Your task to perform on an android device: change the clock style Image 0: 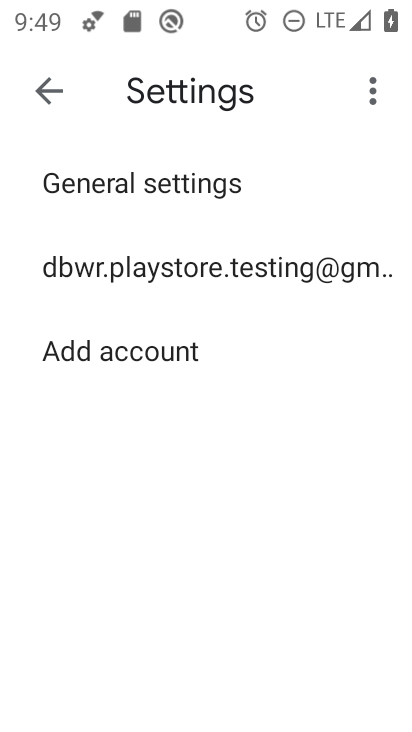
Step 0: press home button
Your task to perform on an android device: change the clock style Image 1: 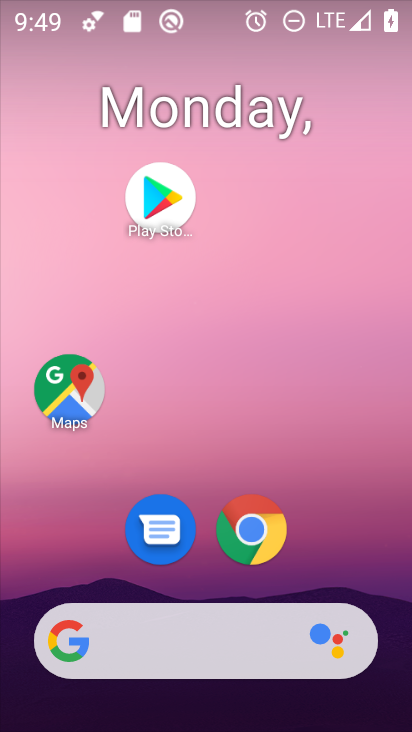
Step 1: drag from (344, 468) to (246, 120)
Your task to perform on an android device: change the clock style Image 2: 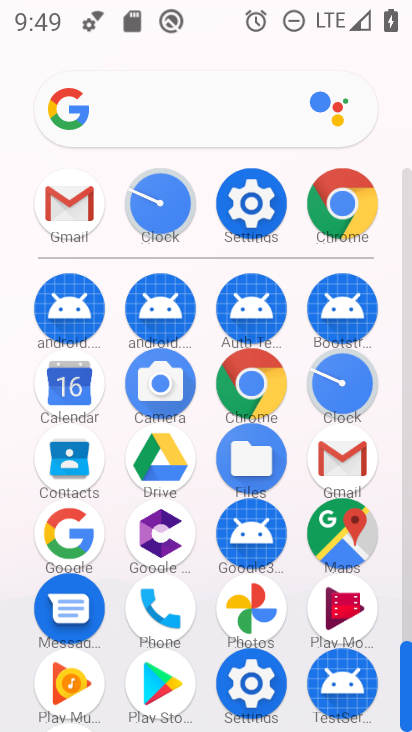
Step 2: click (339, 389)
Your task to perform on an android device: change the clock style Image 3: 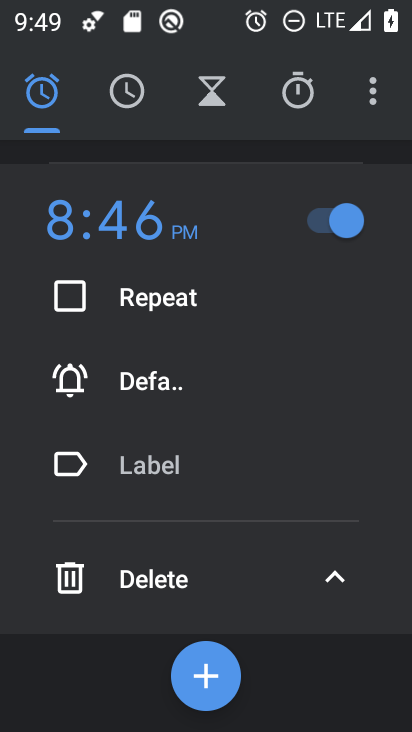
Step 3: click (370, 92)
Your task to perform on an android device: change the clock style Image 4: 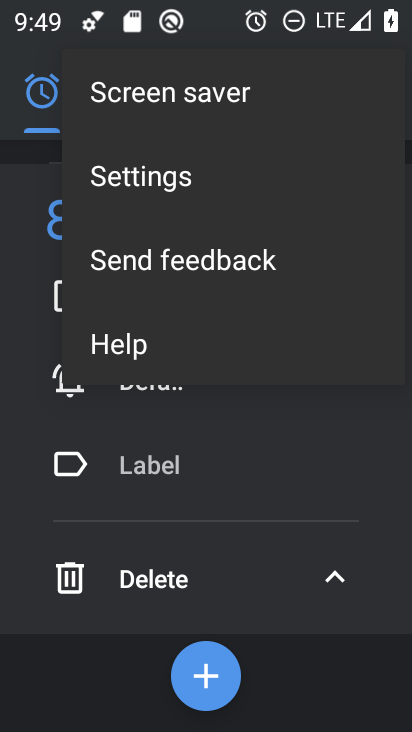
Step 4: click (157, 170)
Your task to perform on an android device: change the clock style Image 5: 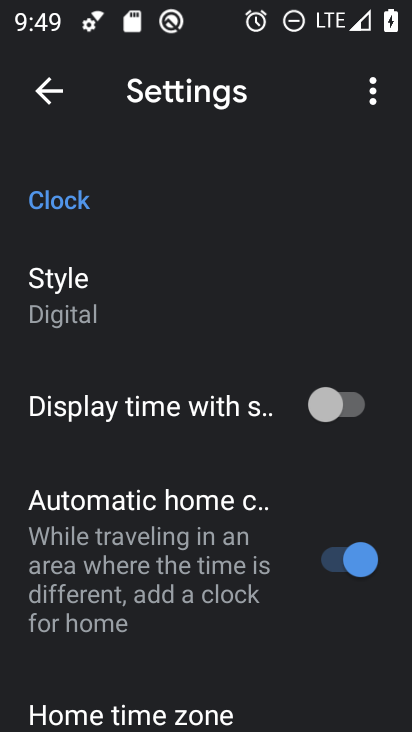
Step 5: click (58, 311)
Your task to perform on an android device: change the clock style Image 6: 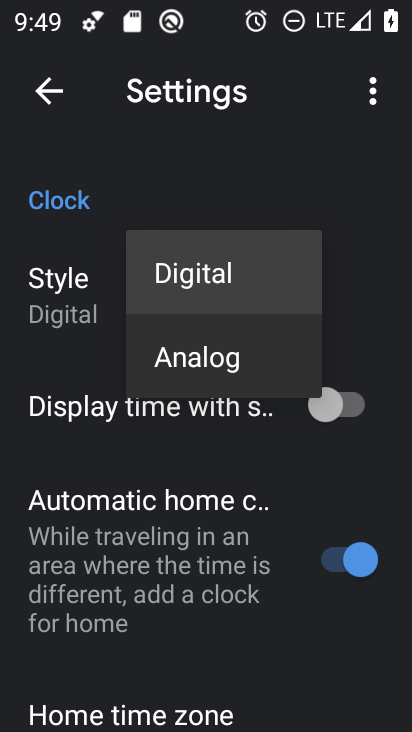
Step 6: click (195, 354)
Your task to perform on an android device: change the clock style Image 7: 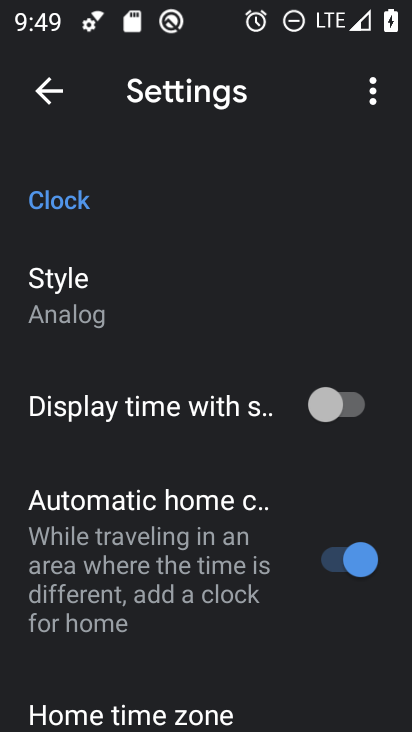
Step 7: task complete